Your task to perform on an android device: Open Maps and search for coffee Image 0: 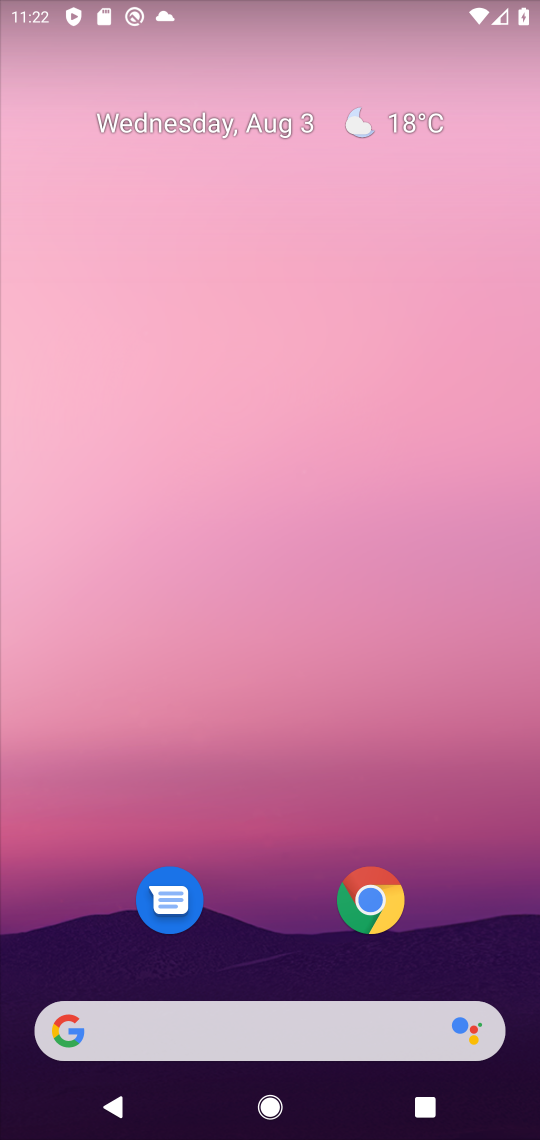
Step 0: press home button
Your task to perform on an android device: Open Maps and search for coffee Image 1: 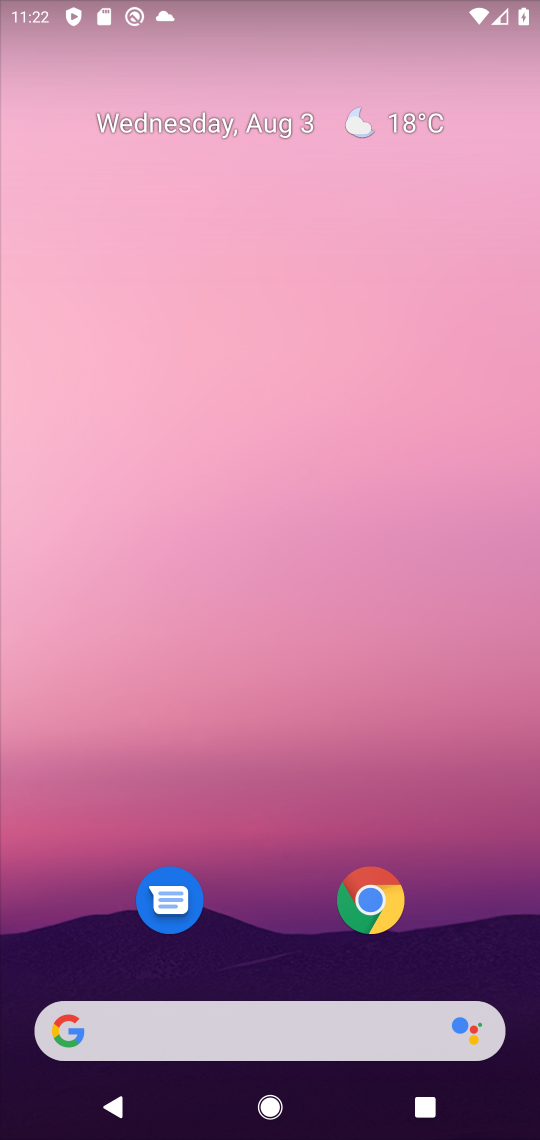
Step 1: drag from (270, 923) to (196, 120)
Your task to perform on an android device: Open Maps and search for coffee Image 2: 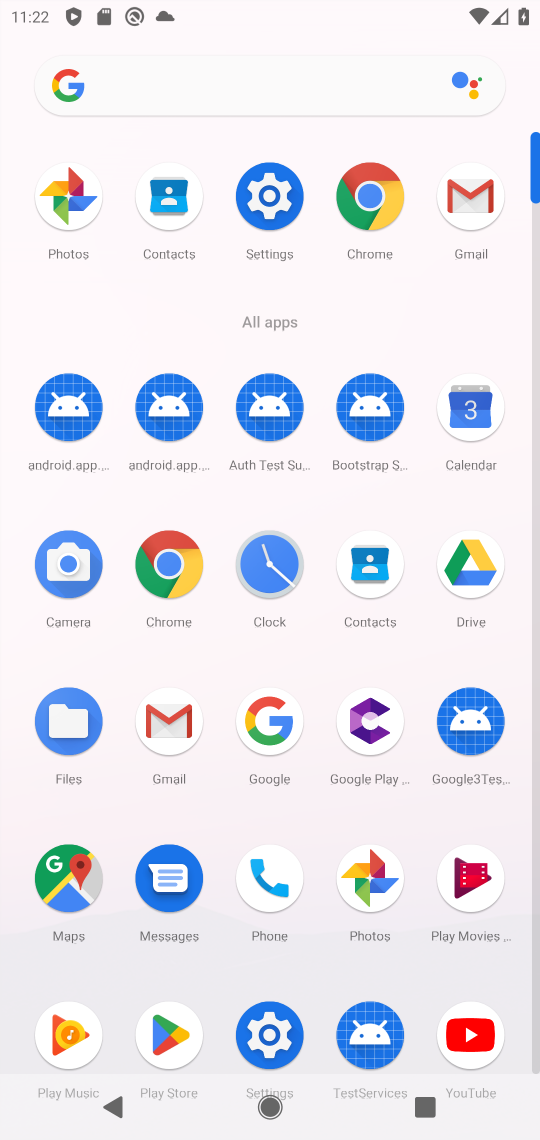
Step 2: click (78, 884)
Your task to perform on an android device: Open Maps and search for coffee Image 3: 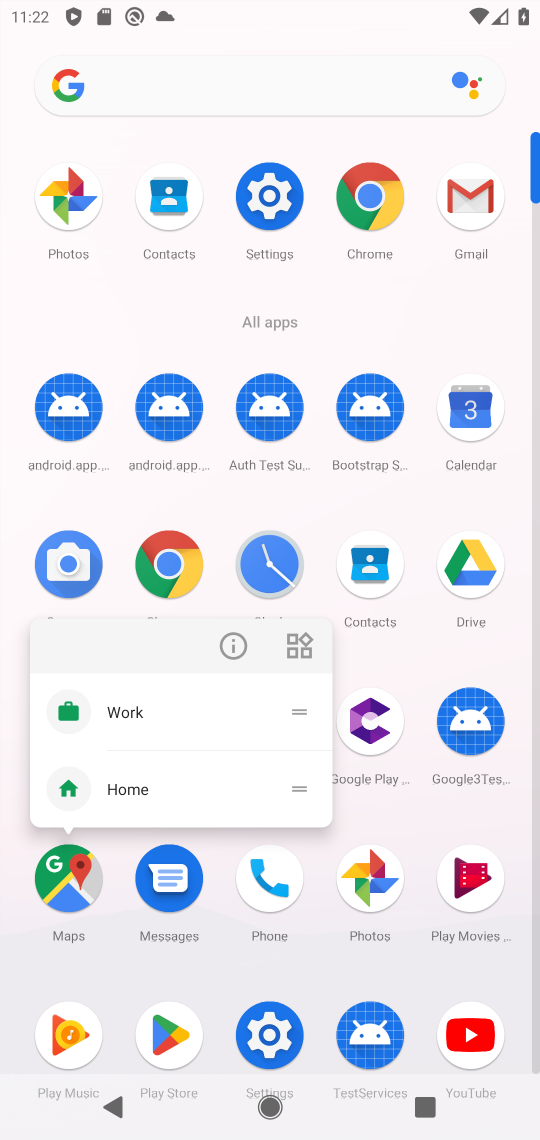
Step 3: click (74, 887)
Your task to perform on an android device: Open Maps and search for coffee Image 4: 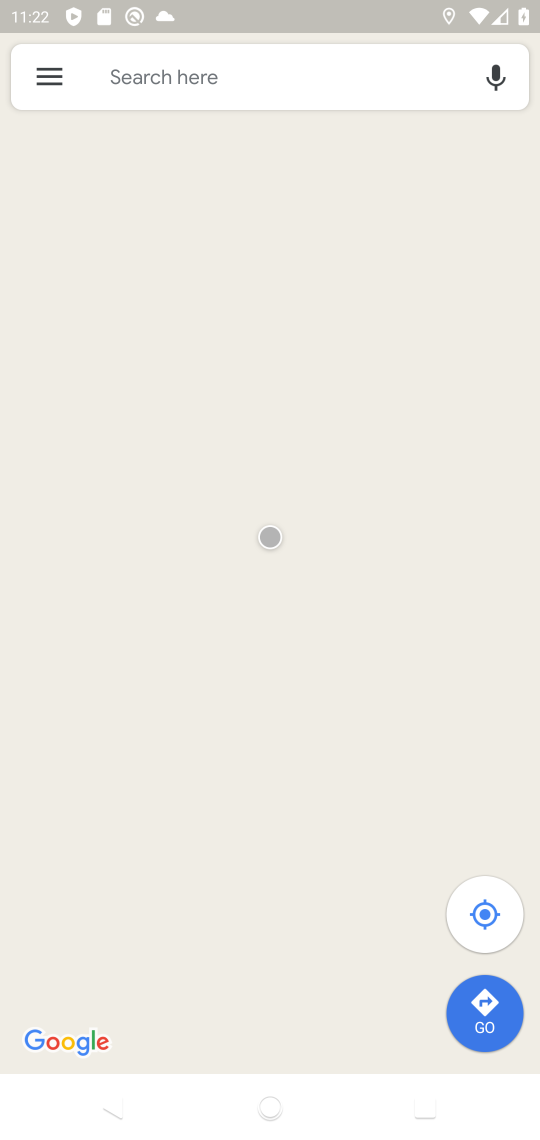
Step 4: type "coffee"
Your task to perform on an android device: Open Maps and search for coffee Image 5: 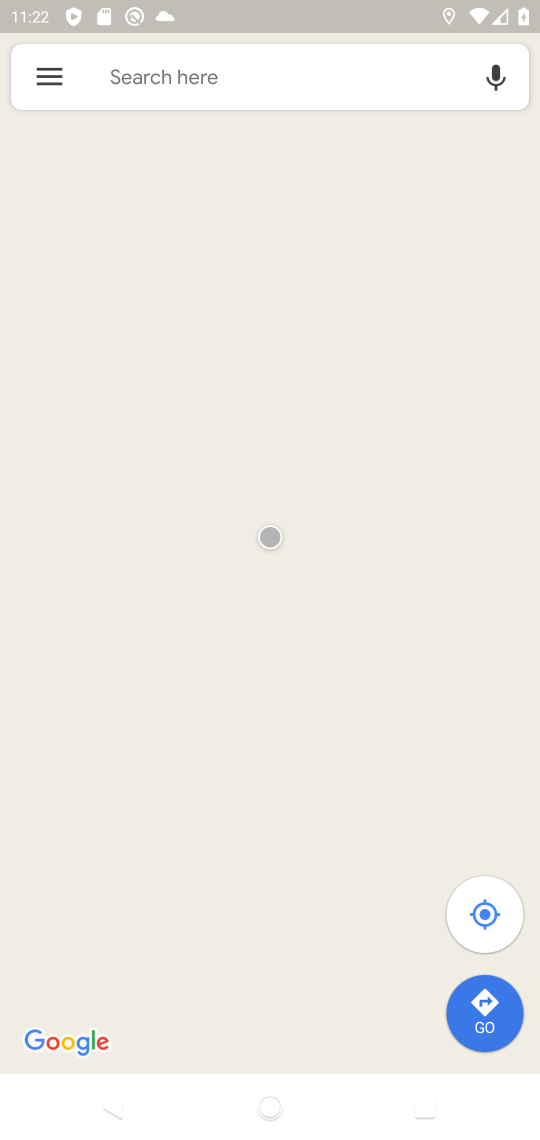
Step 5: click (181, 78)
Your task to perform on an android device: Open Maps and search for coffee Image 6: 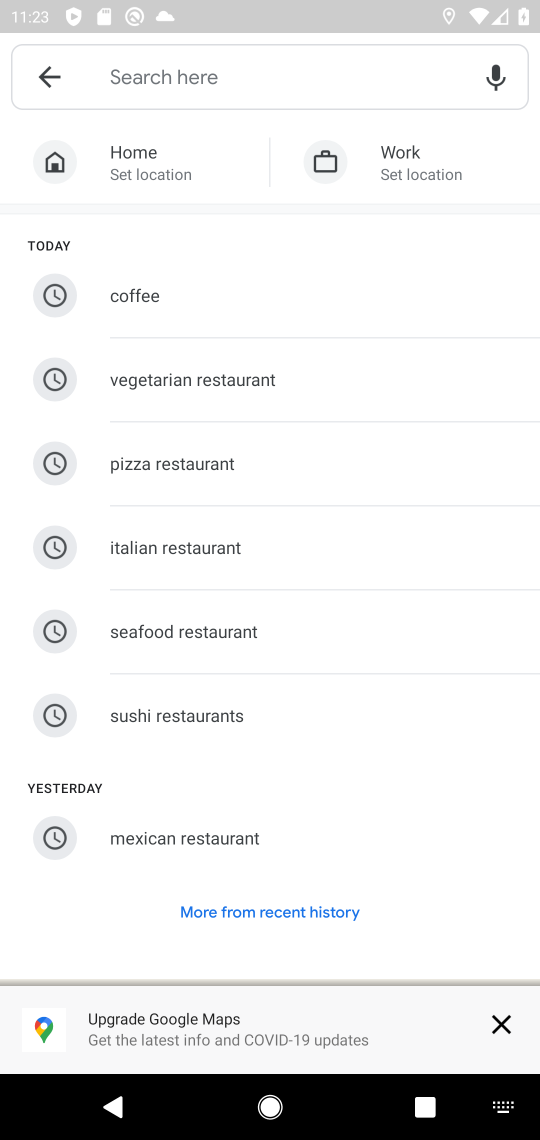
Step 6: click (181, 78)
Your task to perform on an android device: Open Maps and search for coffee Image 7: 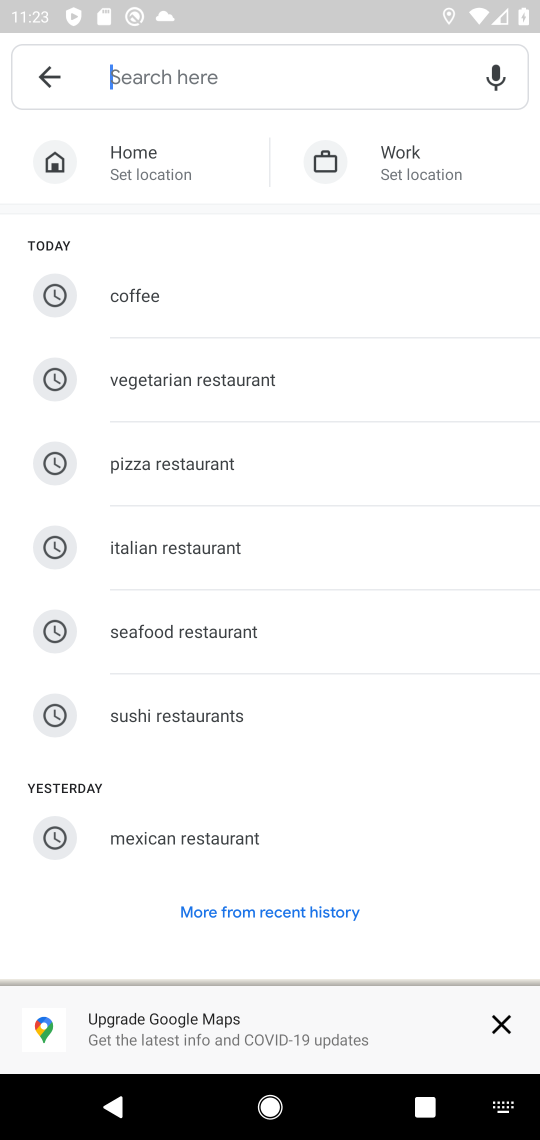
Step 7: type "coffee"
Your task to perform on an android device: Open Maps and search for coffee Image 8: 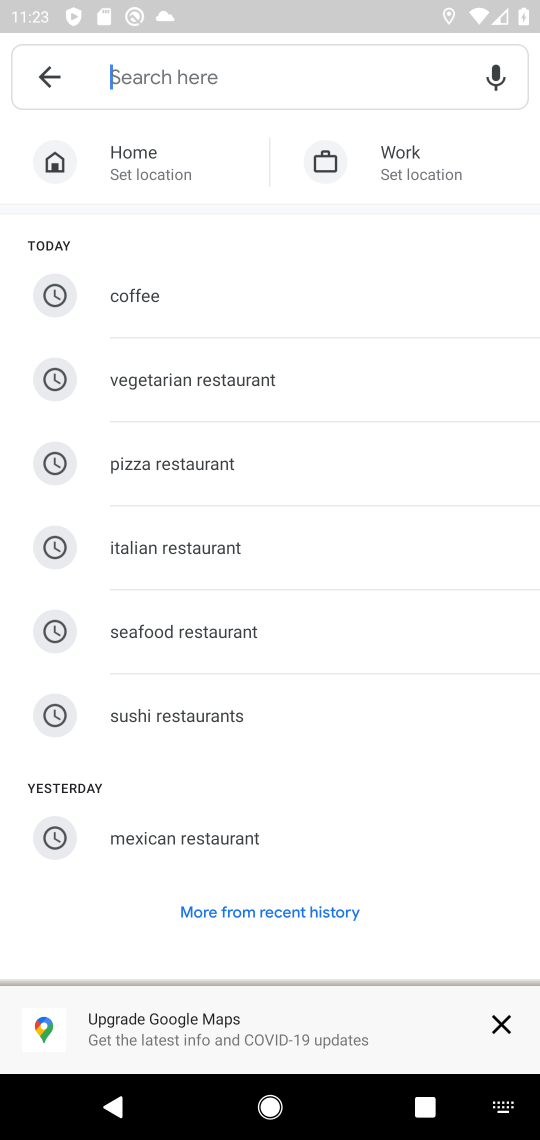
Step 8: click (264, 84)
Your task to perform on an android device: Open Maps and search for coffee Image 9: 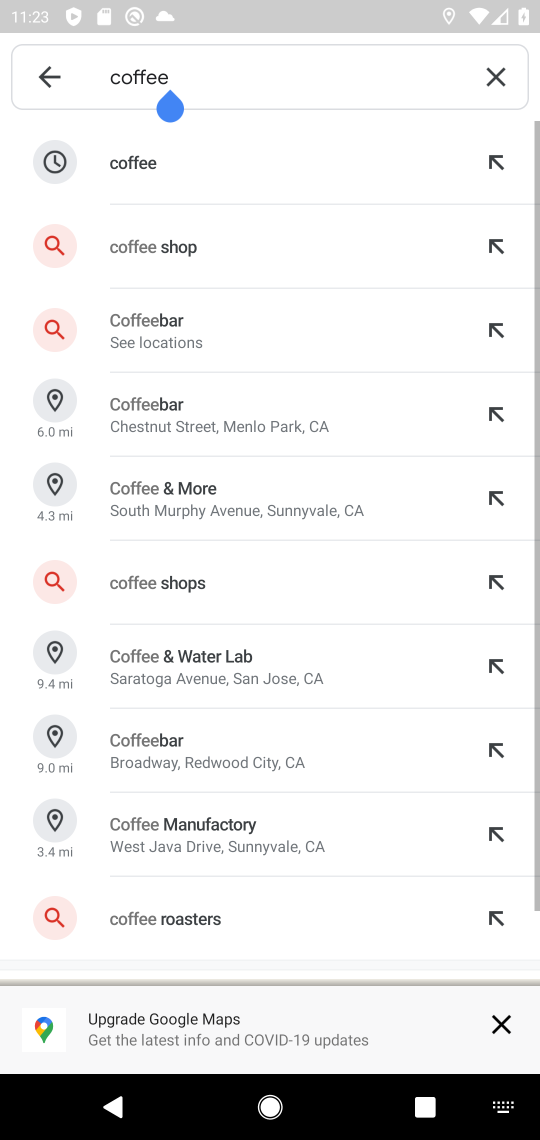
Step 9: press enter
Your task to perform on an android device: Open Maps and search for coffee Image 10: 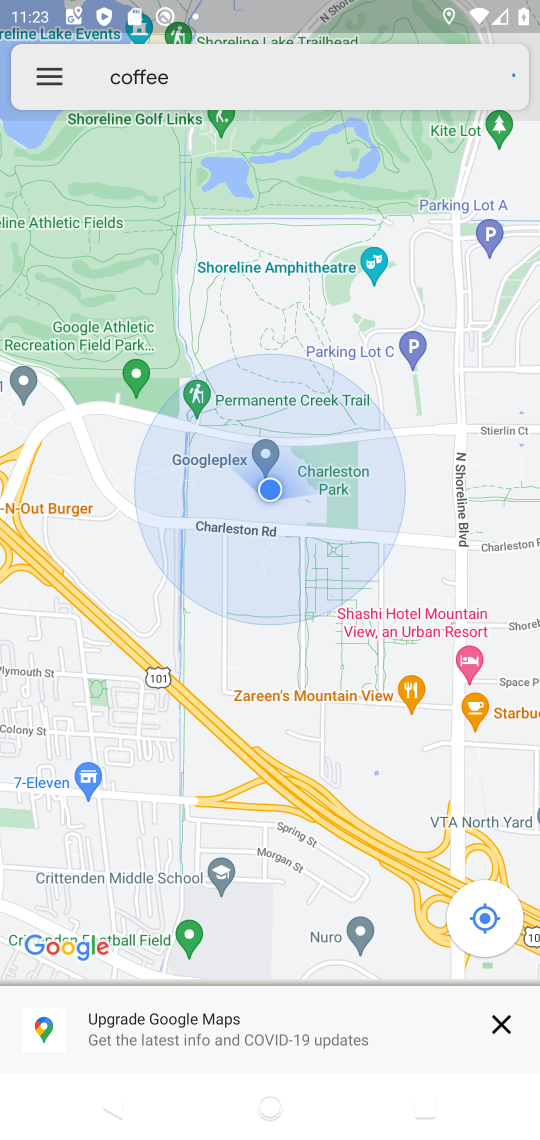
Step 10: task complete